Your task to perform on an android device: Go to battery settings Image 0: 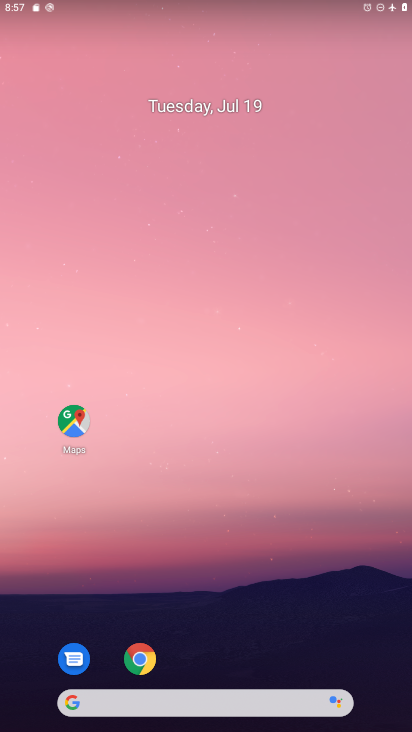
Step 0: drag from (256, 642) to (258, 304)
Your task to perform on an android device: Go to battery settings Image 1: 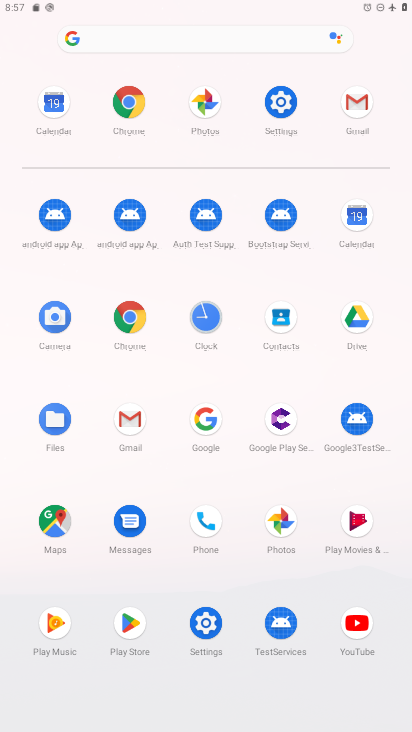
Step 1: click (285, 89)
Your task to perform on an android device: Go to battery settings Image 2: 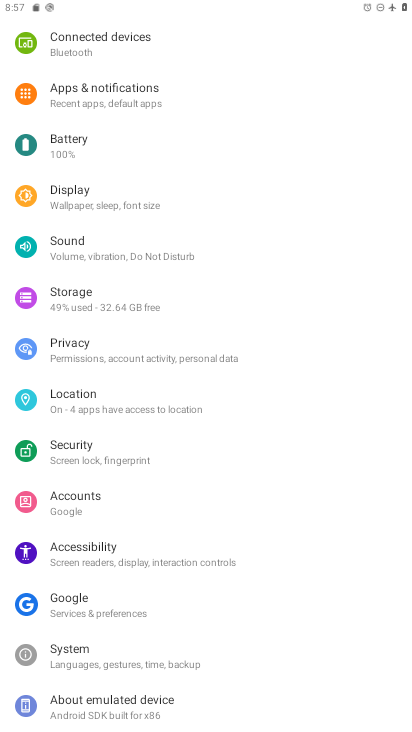
Step 2: click (67, 143)
Your task to perform on an android device: Go to battery settings Image 3: 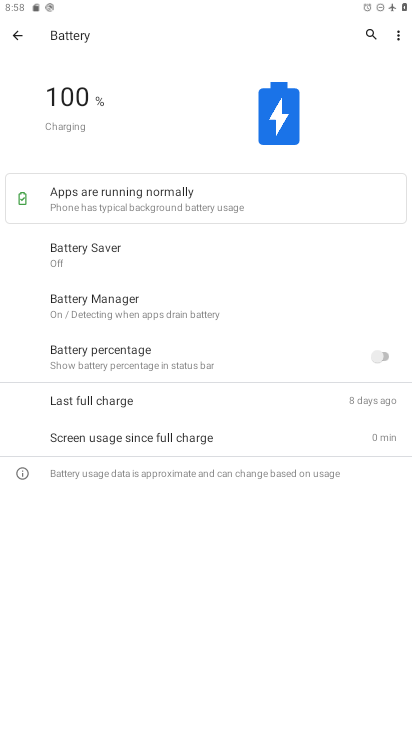
Step 3: task complete